Your task to perform on an android device: Open Google Maps Image 0: 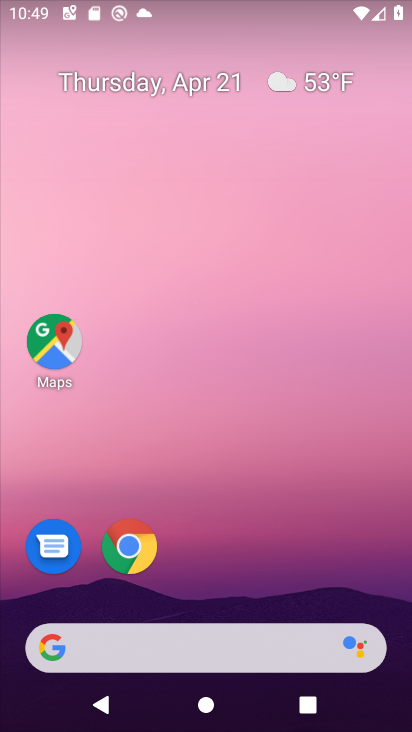
Step 0: click (50, 344)
Your task to perform on an android device: Open Google Maps Image 1: 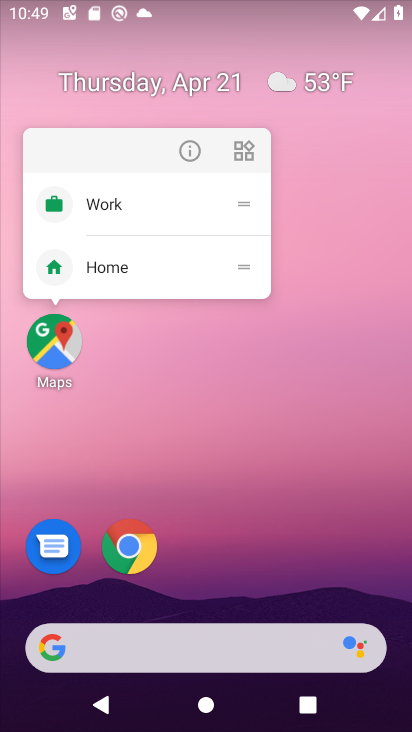
Step 1: click (51, 344)
Your task to perform on an android device: Open Google Maps Image 2: 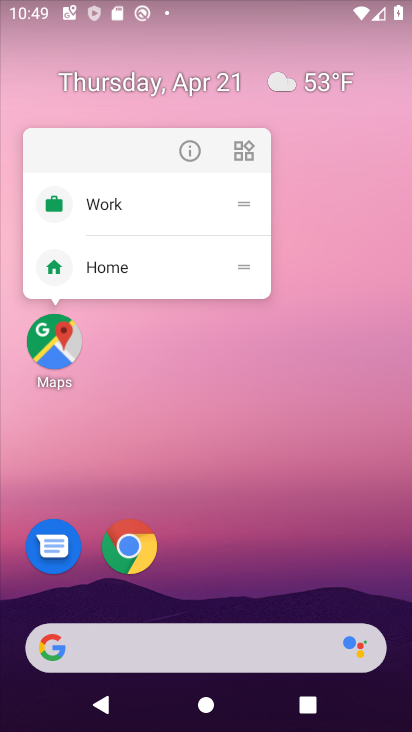
Step 2: click (57, 356)
Your task to perform on an android device: Open Google Maps Image 3: 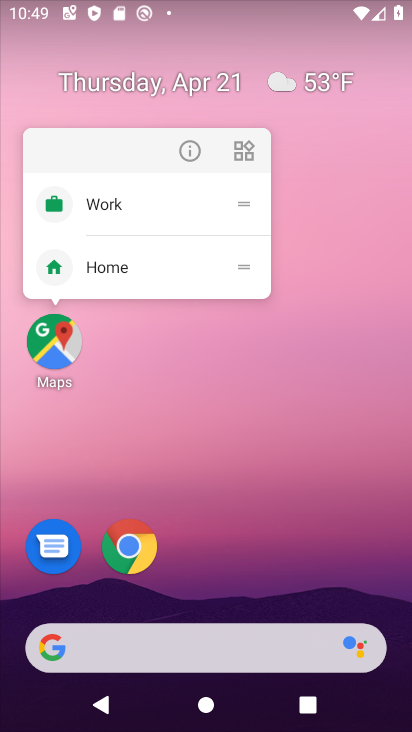
Step 3: click (59, 338)
Your task to perform on an android device: Open Google Maps Image 4: 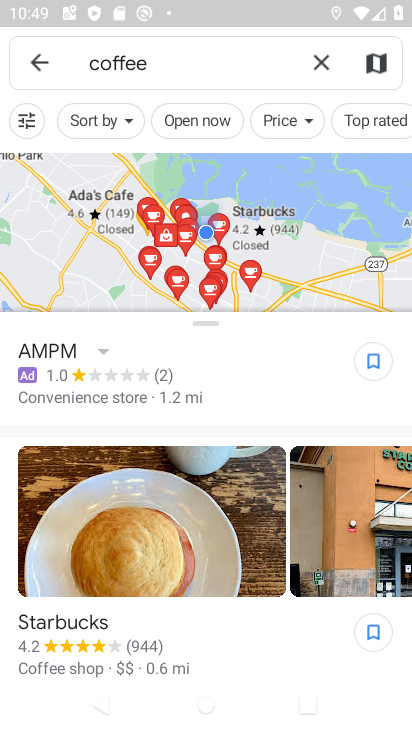
Step 4: task complete